Your task to perform on an android device: open app "YouTube Kids" (install if not already installed) and enter user name: "atmospheric@gmail.com" and password: "raze" Image 0: 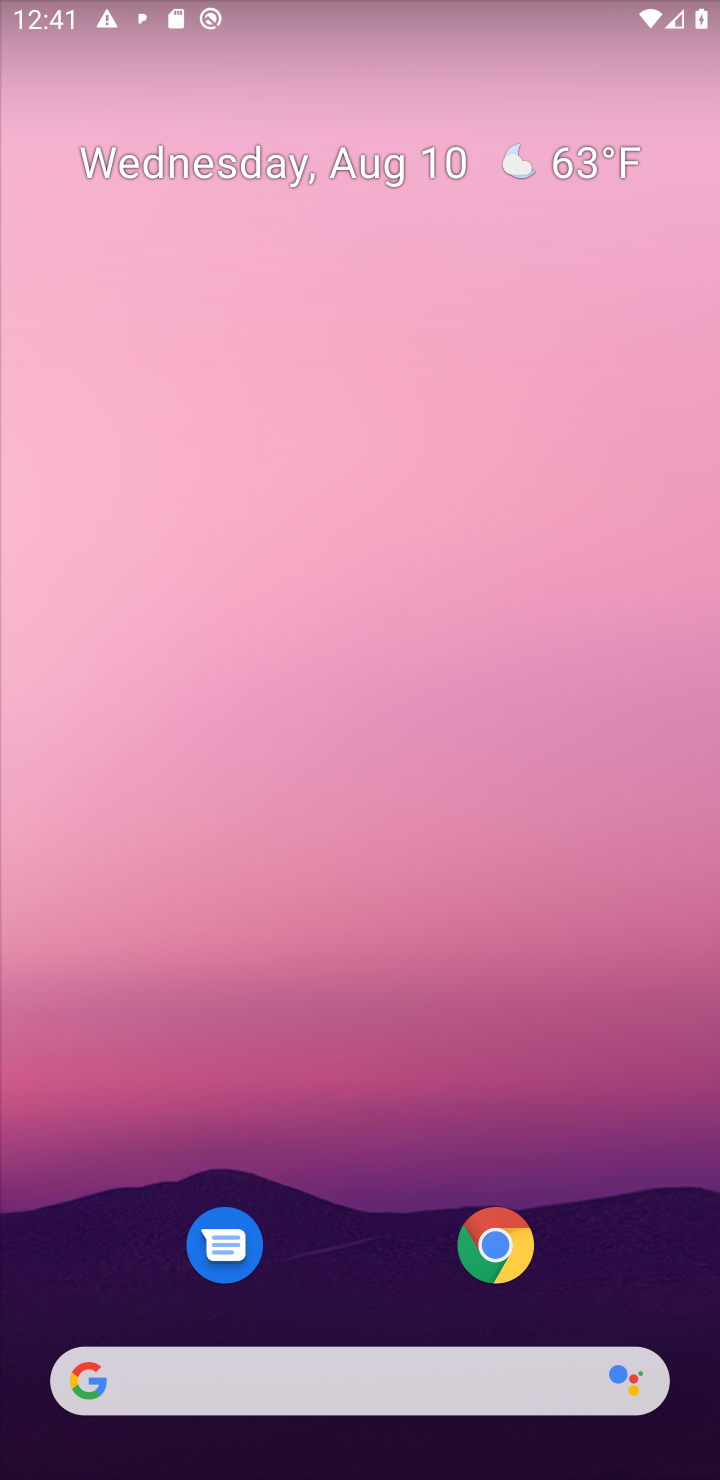
Step 0: press home button
Your task to perform on an android device: open app "YouTube Kids" (install if not already installed) and enter user name: "atmospheric@gmail.com" and password: "raze" Image 1: 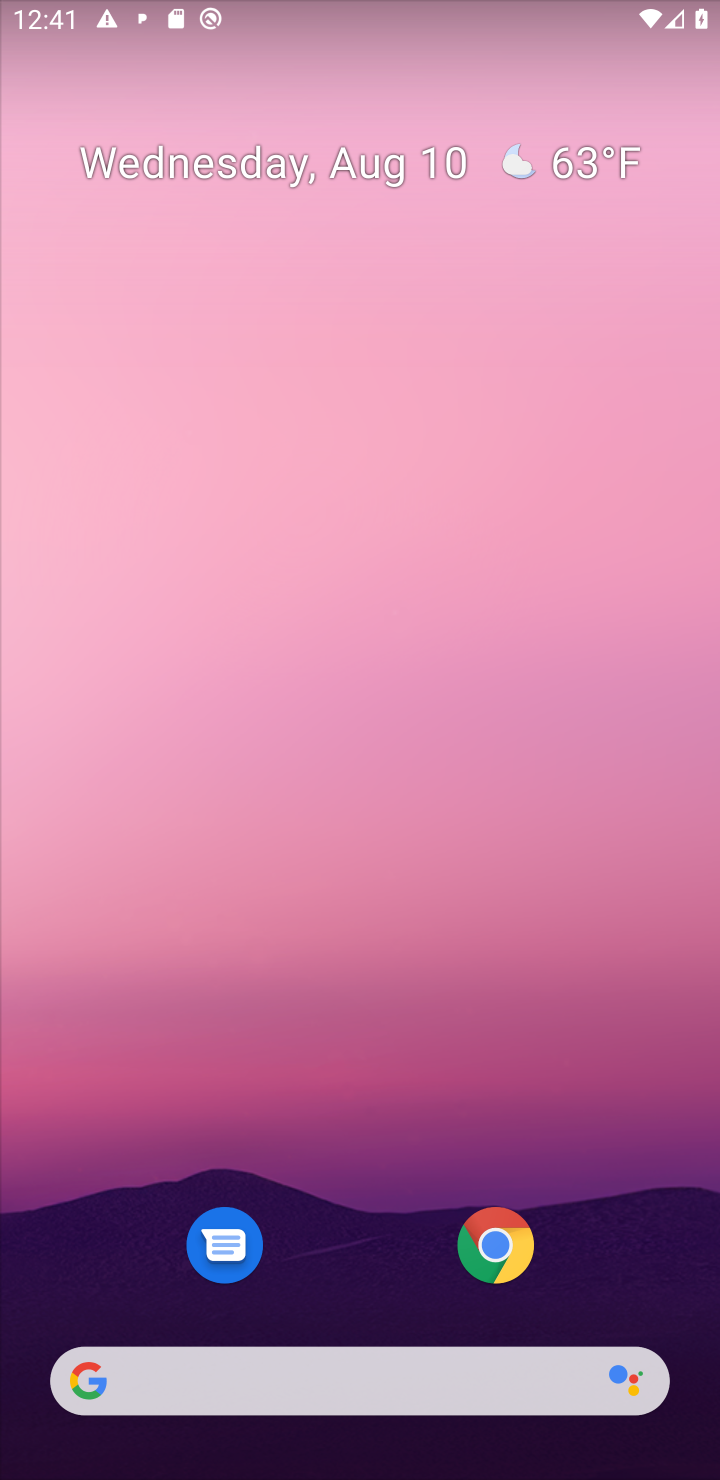
Step 1: click (398, 510)
Your task to perform on an android device: open app "YouTube Kids" (install if not already installed) and enter user name: "atmospheric@gmail.com" and password: "raze" Image 2: 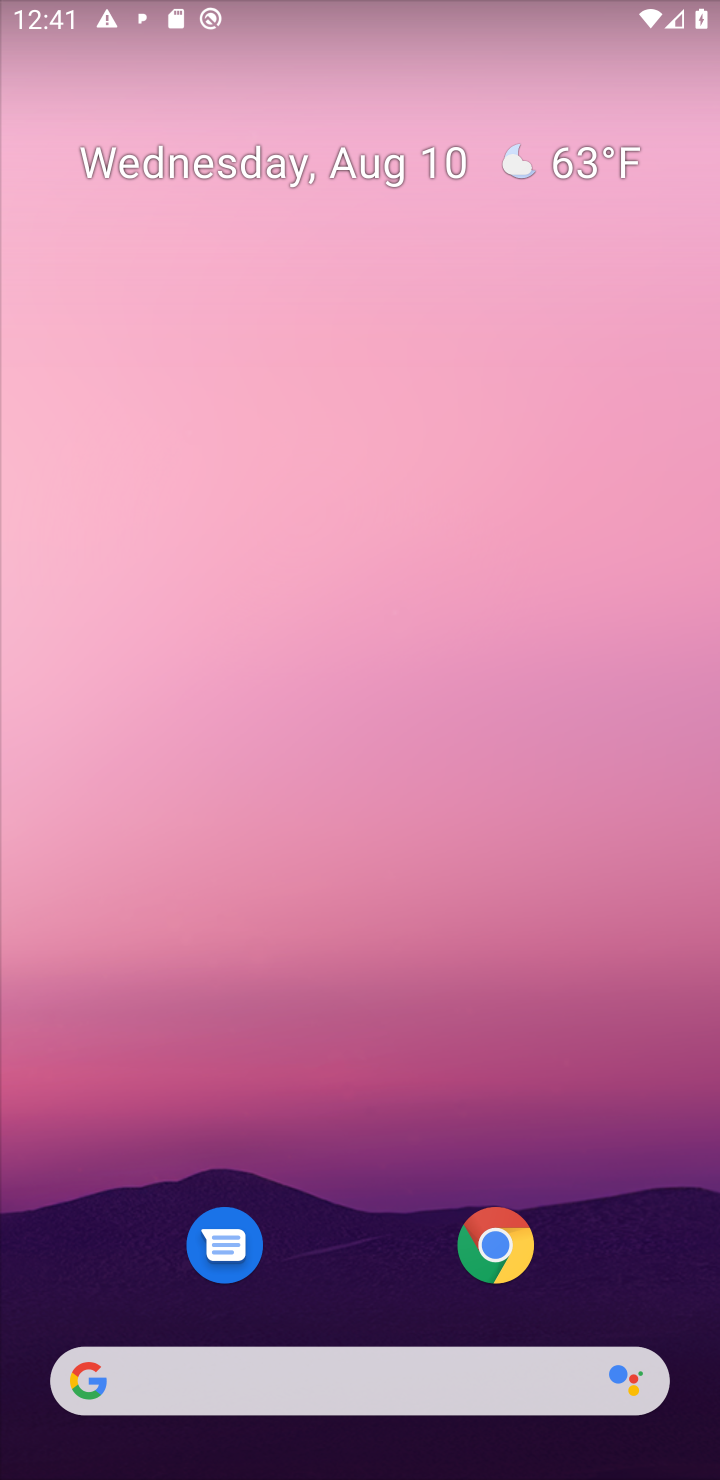
Step 2: drag from (283, 1364) to (356, 776)
Your task to perform on an android device: open app "YouTube Kids" (install if not already installed) and enter user name: "atmospheric@gmail.com" and password: "raze" Image 3: 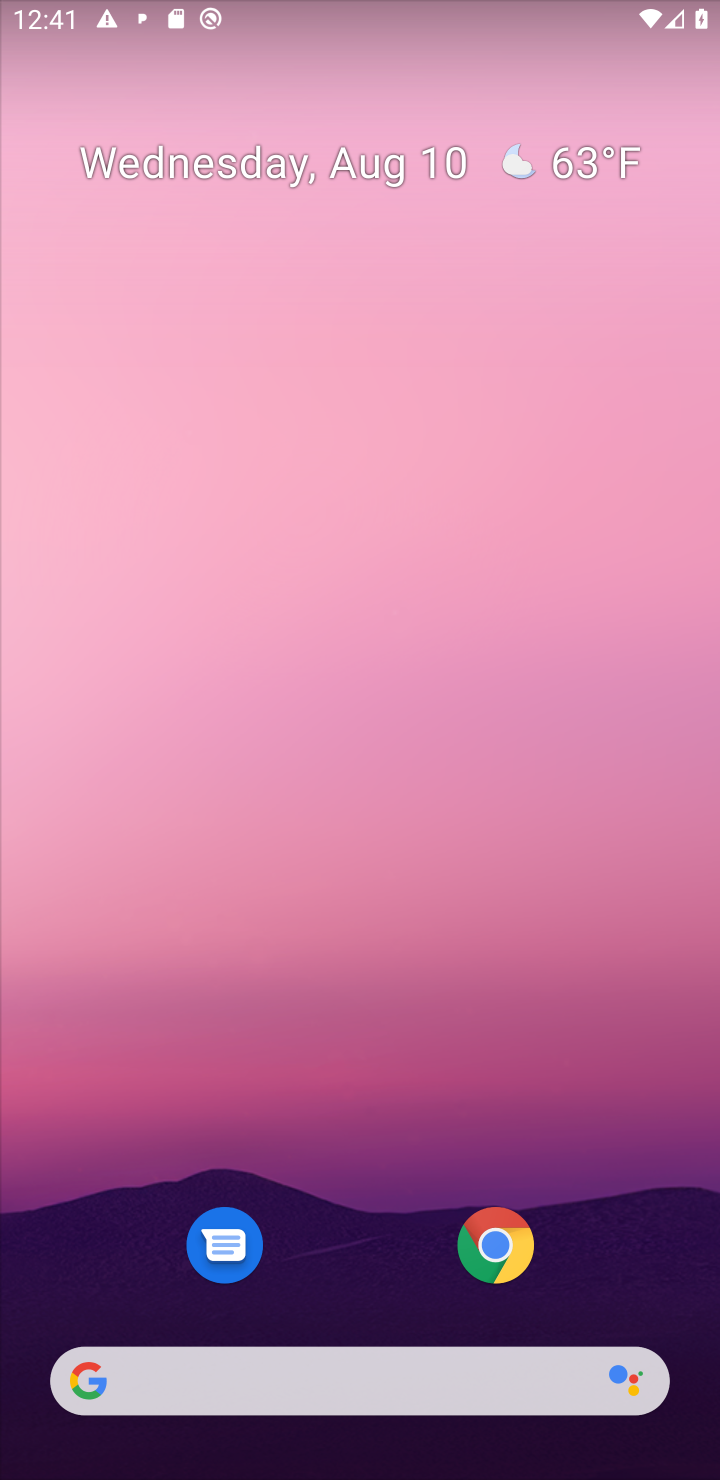
Step 3: drag from (440, 1265) to (564, 225)
Your task to perform on an android device: open app "YouTube Kids" (install if not already installed) and enter user name: "atmospheric@gmail.com" and password: "raze" Image 4: 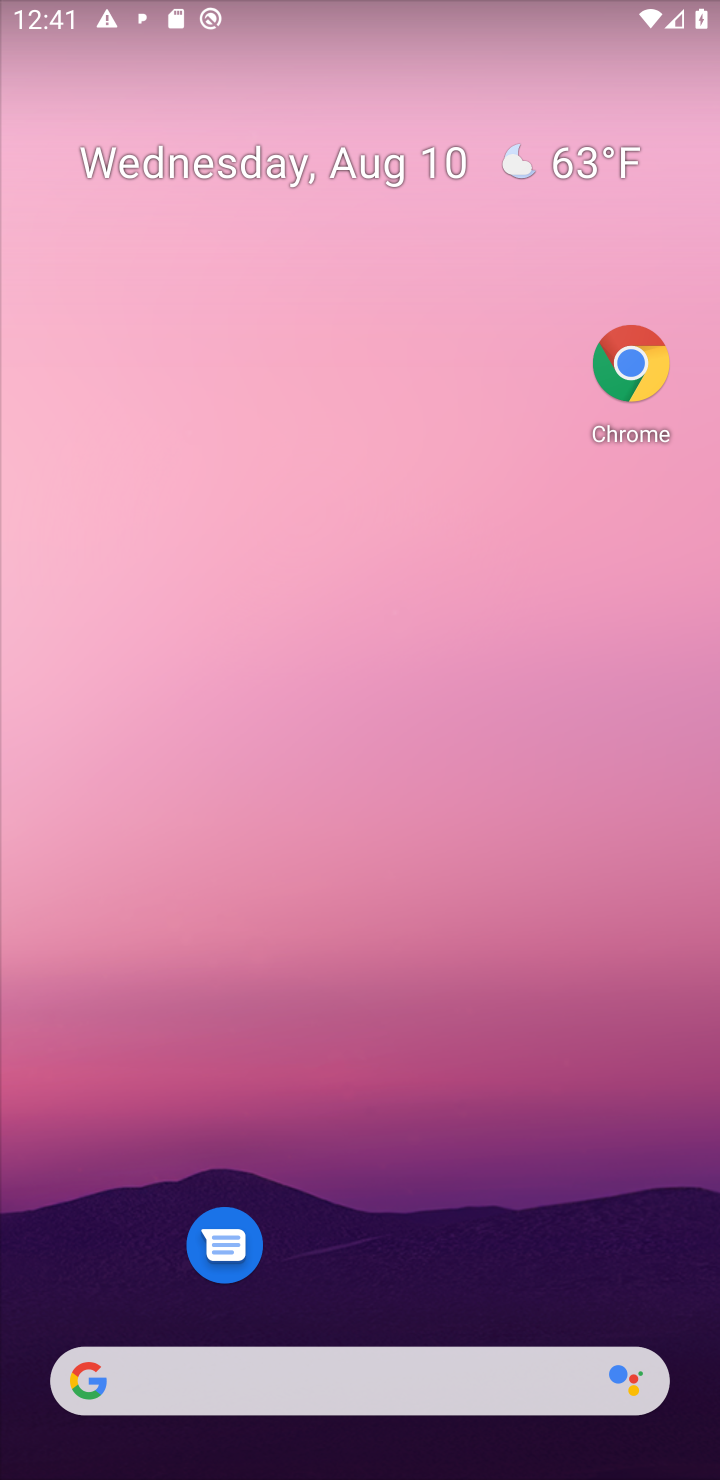
Step 4: drag from (432, 1356) to (385, 799)
Your task to perform on an android device: open app "YouTube Kids" (install if not already installed) and enter user name: "atmospheric@gmail.com" and password: "raze" Image 5: 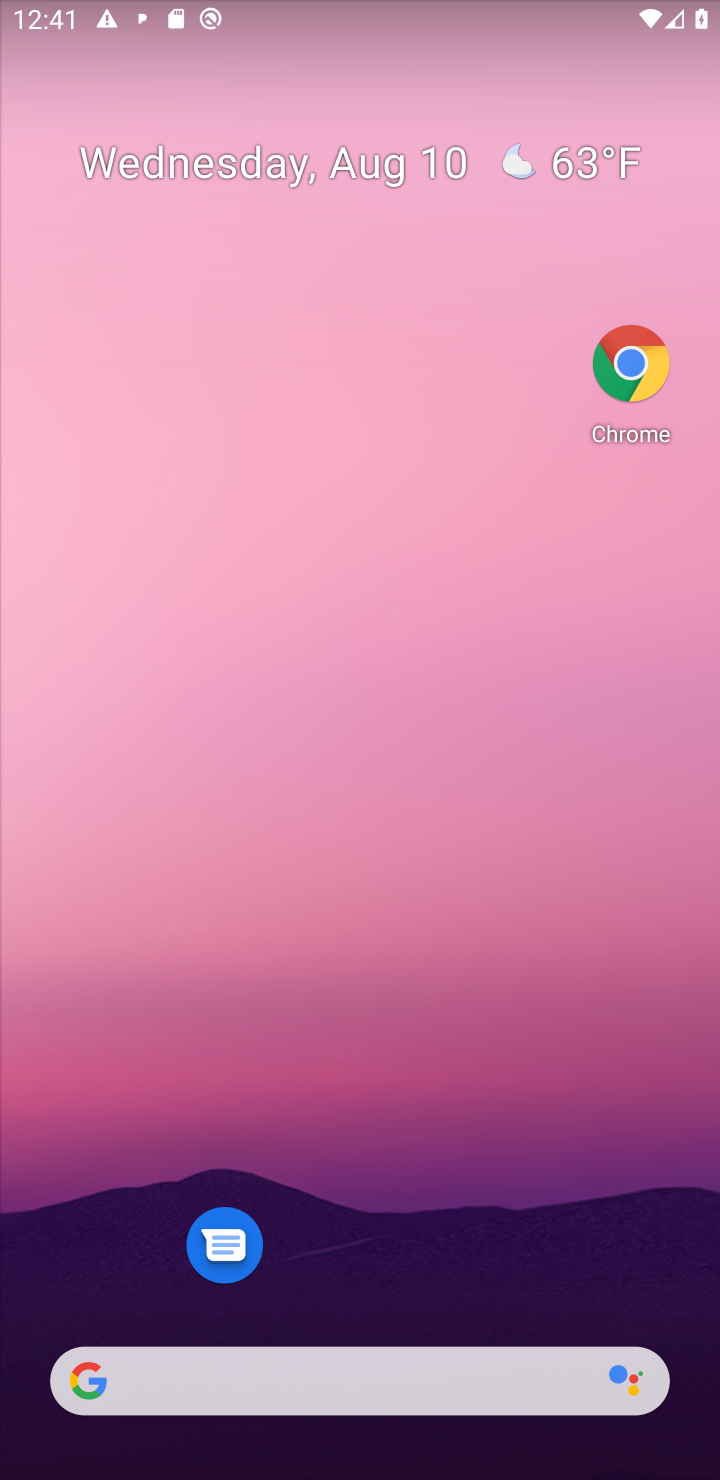
Step 5: drag from (388, 1347) to (312, 306)
Your task to perform on an android device: open app "YouTube Kids" (install if not already installed) and enter user name: "atmospheric@gmail.com" and password: "raze" Image 6: 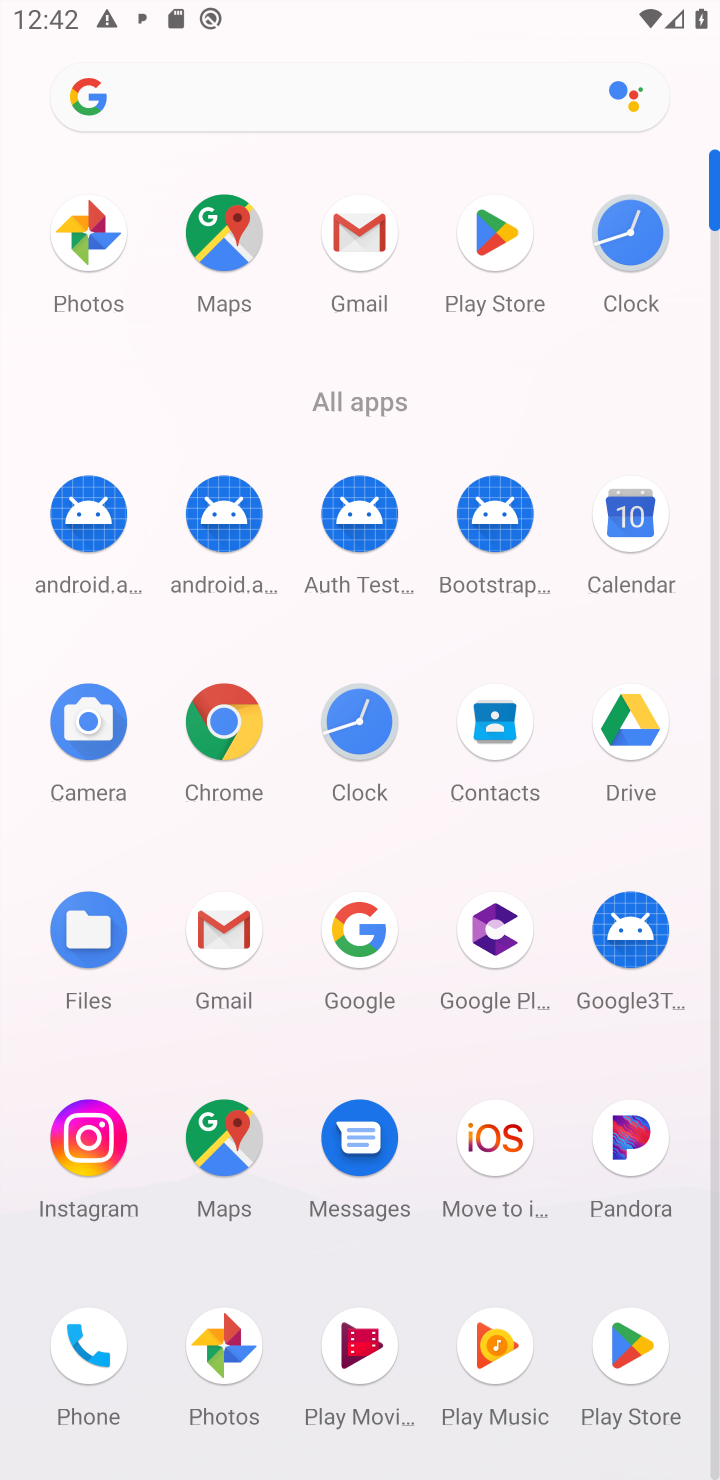
Step 6: click (481, 241)
Your task to perform on an android device: open app "YouTube Kids" (install if not already installed) and enter user name: "atmospheric@gmail.com" and password: "raze" Image 7: 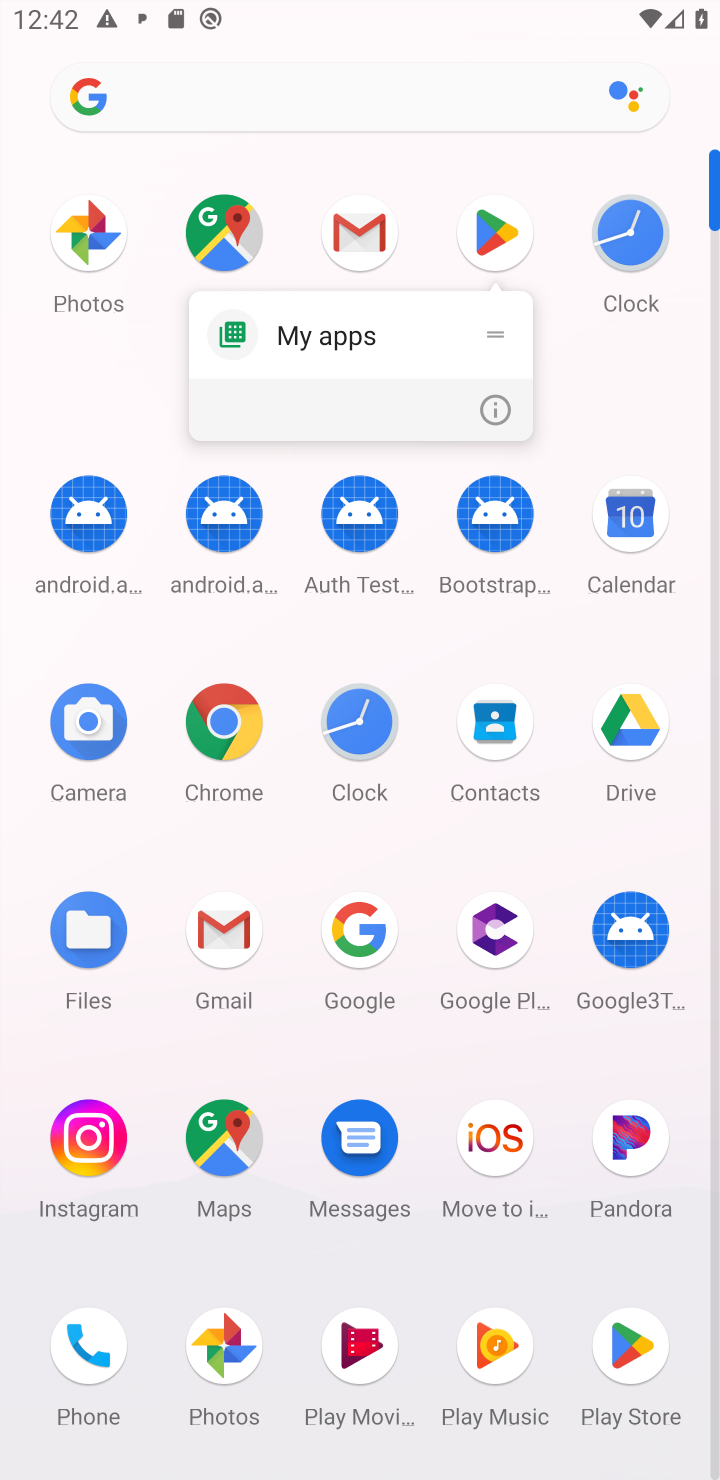
Step 7: click (492, 224)
Your task to perform on an android device: open app "YouTube Kids" (install if not already installed) and enter user name: "atmospheric@gmail.com" and password: "raze" Image 8: 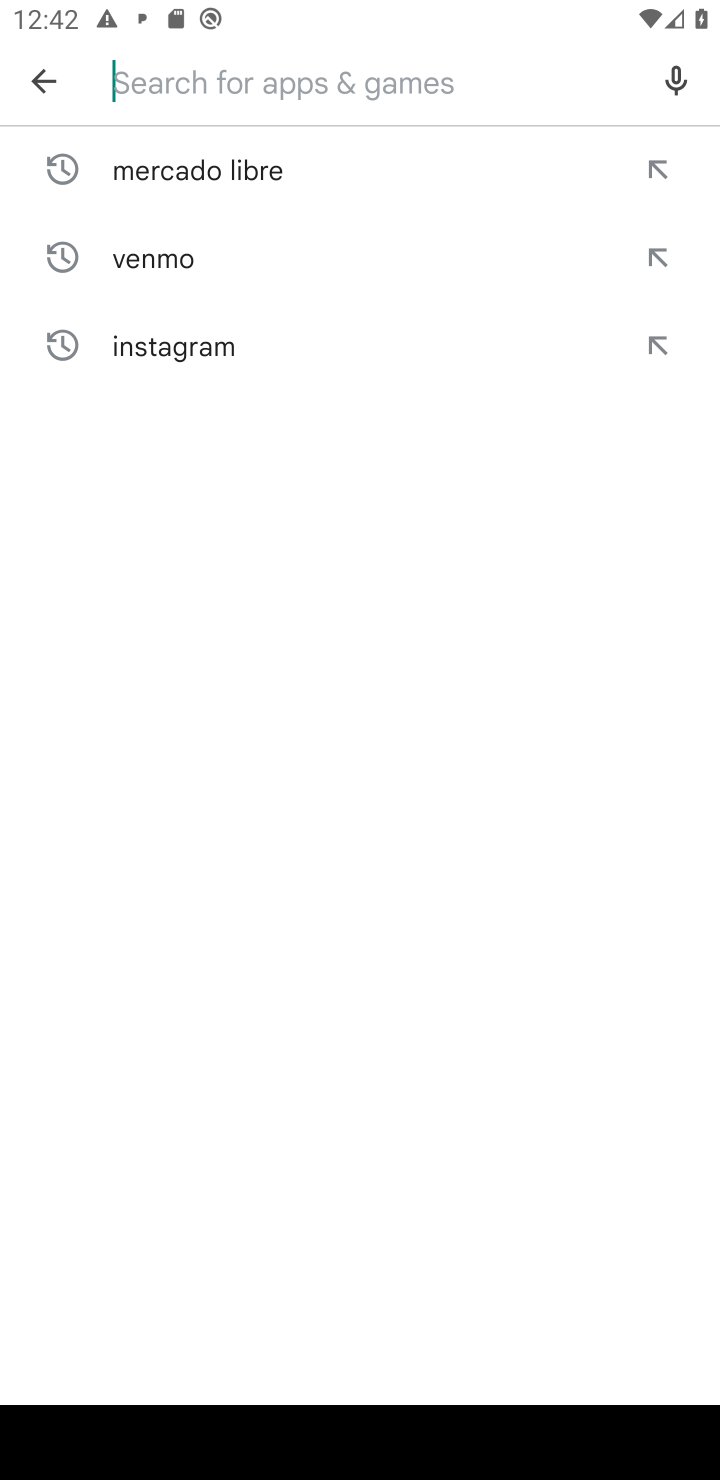
Step 8: type "YouTube Kids"
Your task to perform on an android device: open app "YouTube Kids" (install if not already installed) and enter user name: "atmospheric@gmail.com" and password: "raze" Image 9: 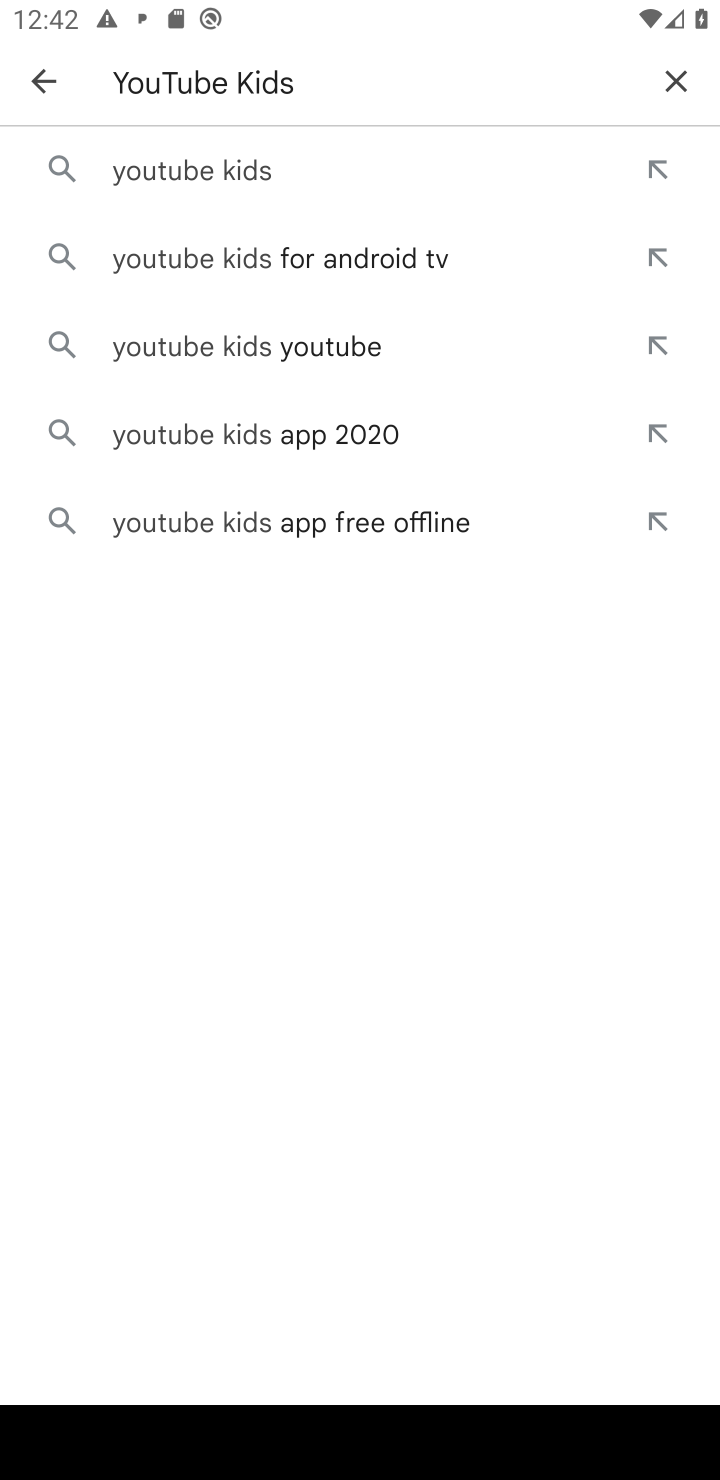
Step 9: click (231, 164)
Your task to perform on an android device: open app "YouTube Kids" (install if not already installed) and enter user name: "atmospheric@gmail.com" and password: "raze" Image 10: 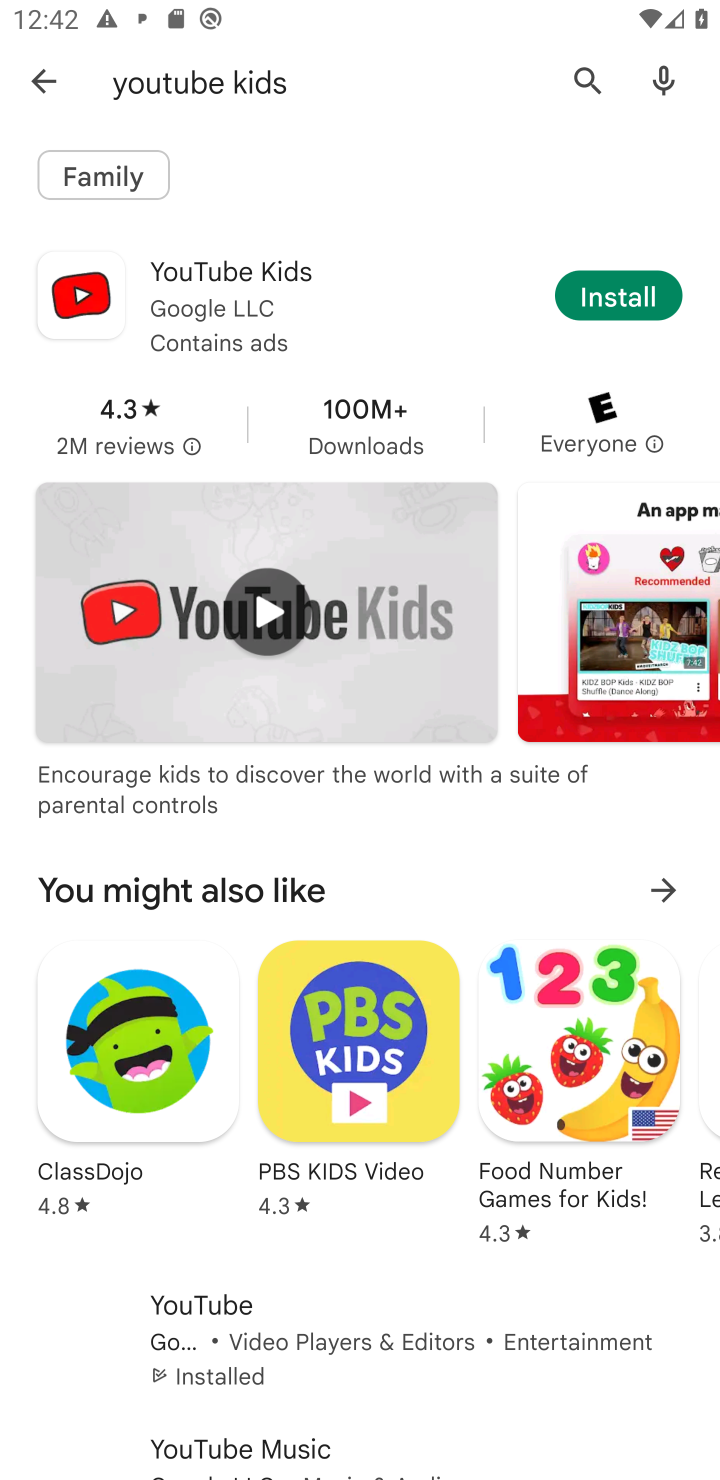
Step 10: click (589, 302)
Your task to perform on an android device: open app "YouTube Kids" (install if not already installed) and enter user name: "atmospheric@gmail.com" and password: "raze" Image 11: 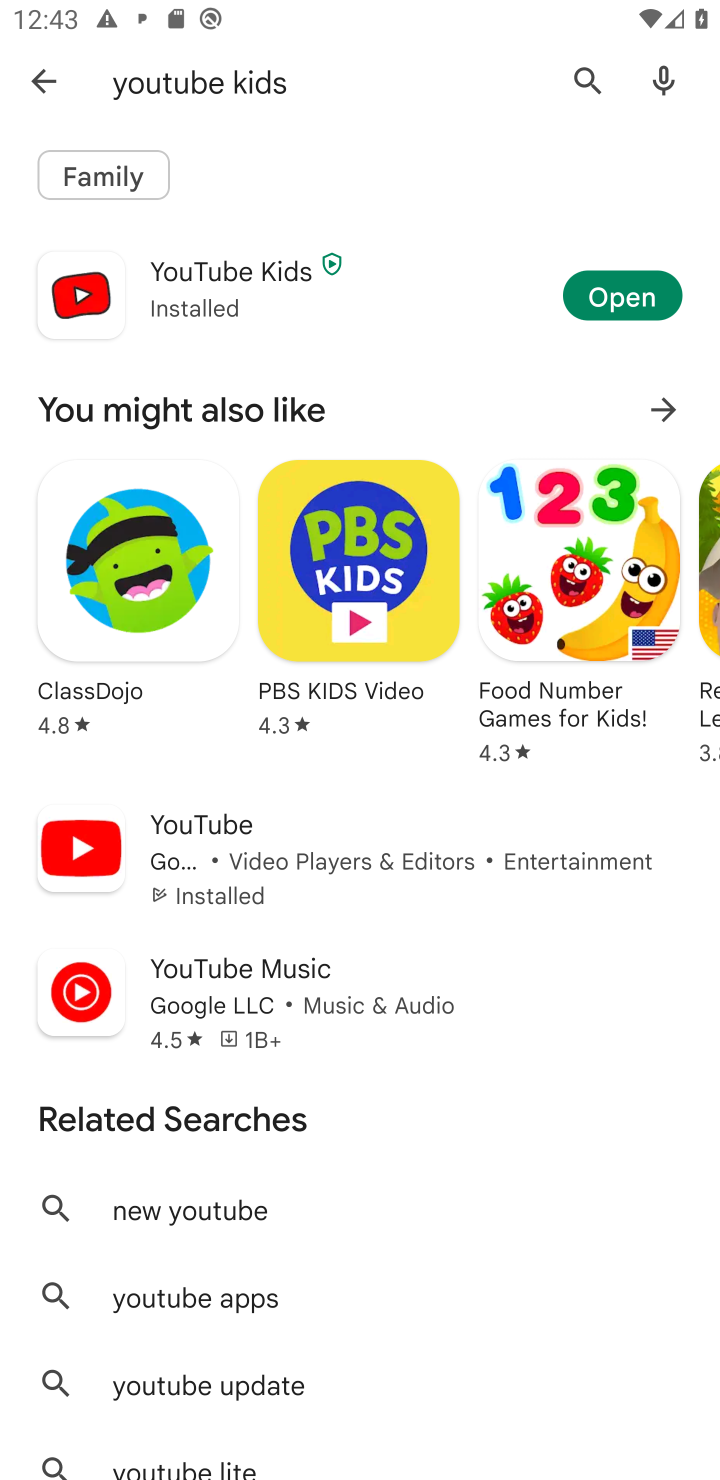
Step 11: click (609, 310)
Your task to perform on an android device: open app "YouTube Kids" (install if not already installed) and enter user name: "atmospheric@gmail.com" and password: "raze" Image 12: 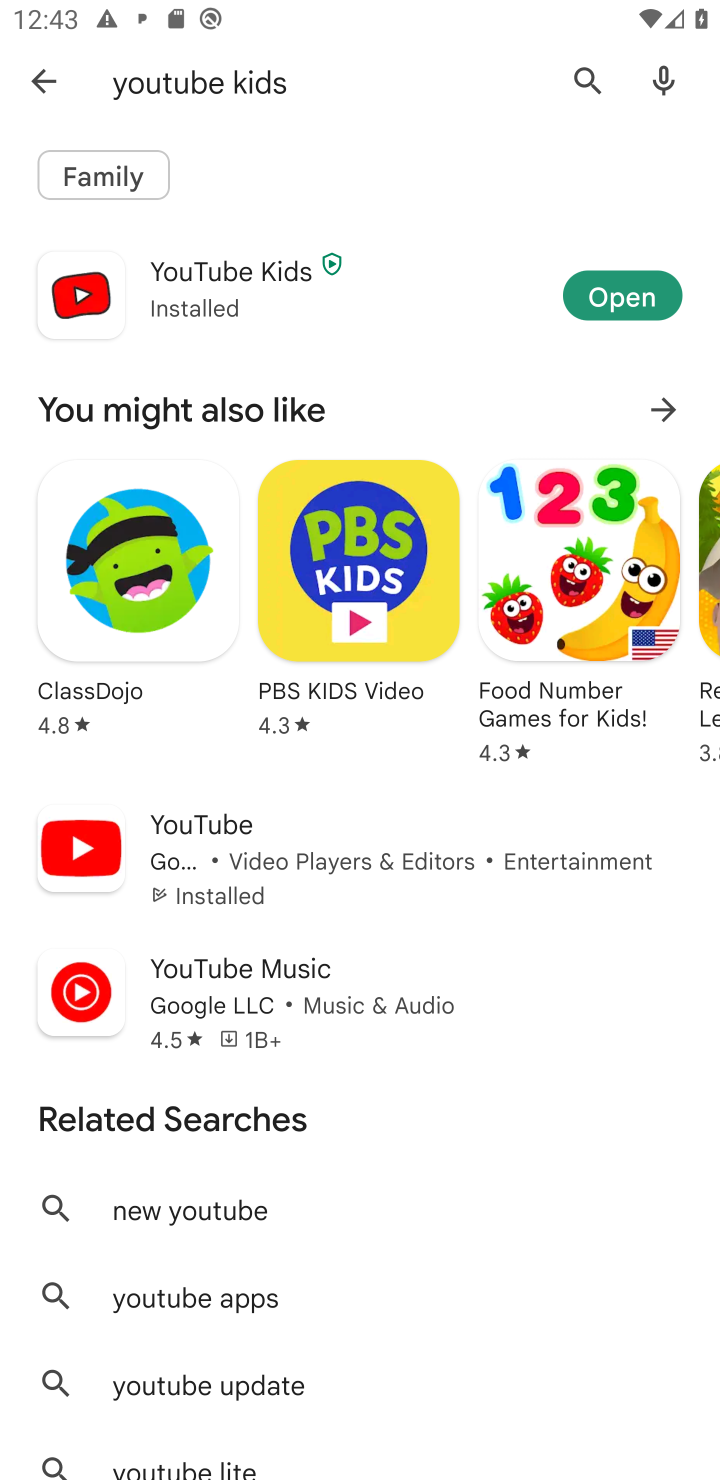
Step 12: task complete